Your task to perform on an android device: Open my contact list Image 0: 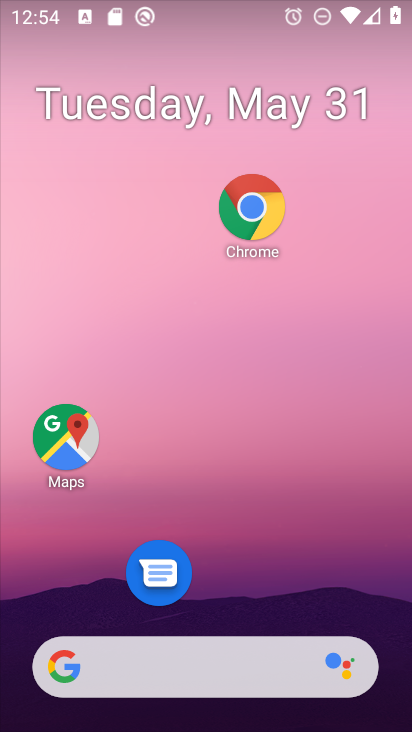
Step 0: drag from (236, 659) to (228, 119)
Your task to perform on an android device: Open my contact list Image 1: 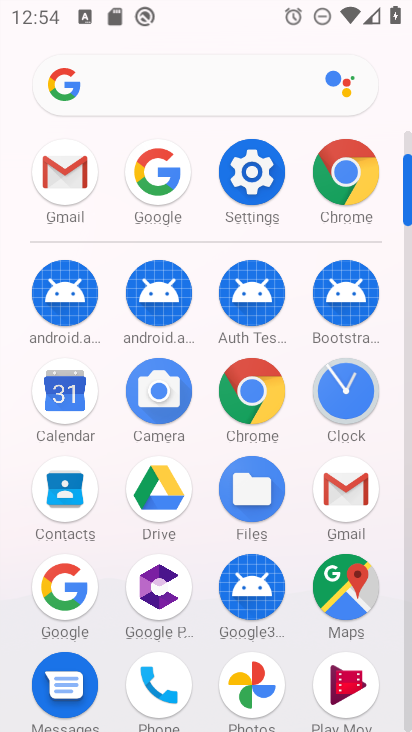
Step 1: click (71, 500)
Your task to perform on an android device: Open my contact list Image 2: 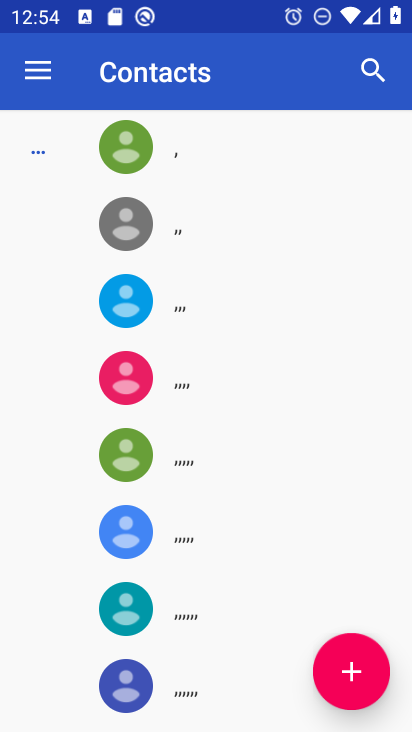
Step 2: task complete